Your task to perform on an android device: Open Google Image 0: 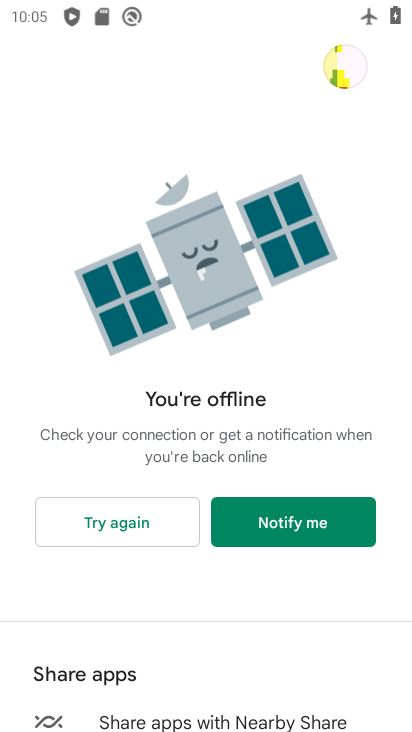
Step 0: press home button
Your task to perform on an android device: Open Google Image 1: 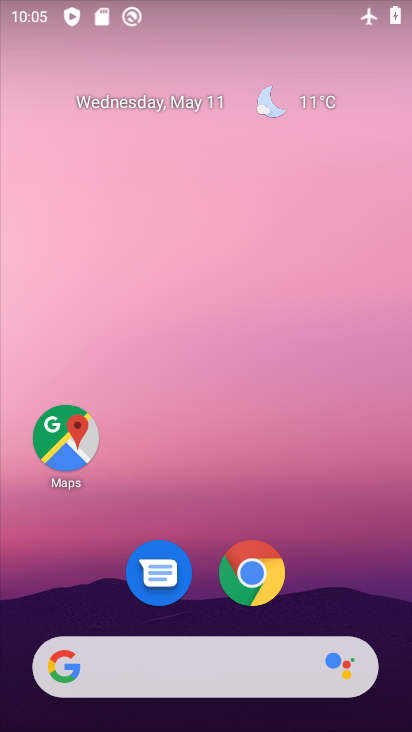
Step 1: click (180, 678)
Your task to perform on an android device: Open Google Image 2: 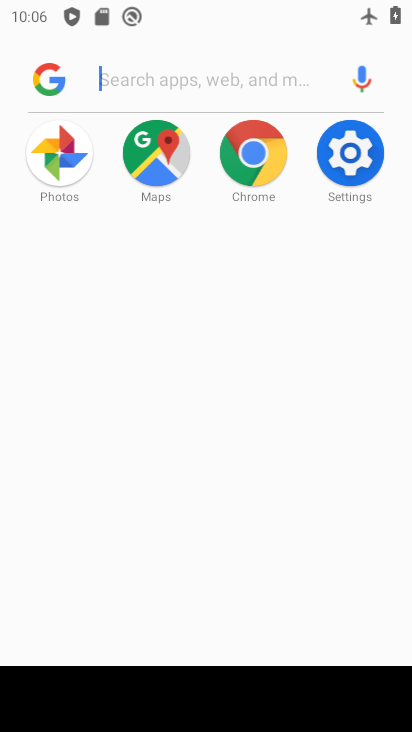
Step 2: type "google"
Your task to perform on an android device: Open Google Image 3: 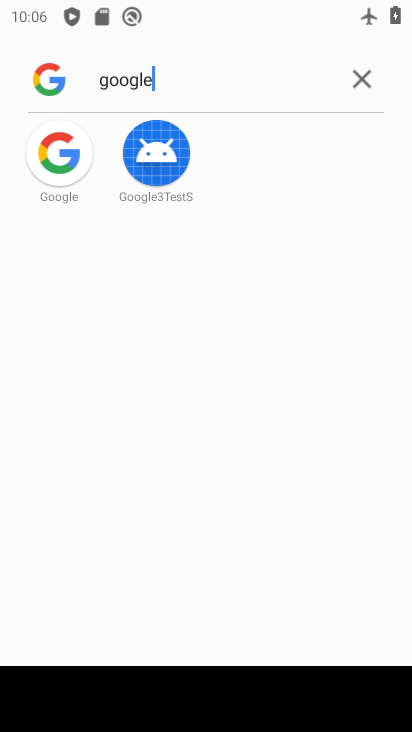
Step 3: click (67, 182)
Your task to perform on an android device: Open Google Image 4: 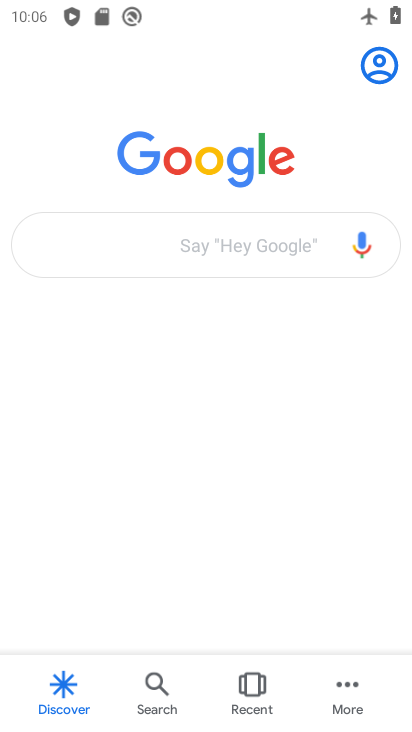
Step 4: task complete